Your task to perform on an android device: clear all cookies in the chrome app Image 0: 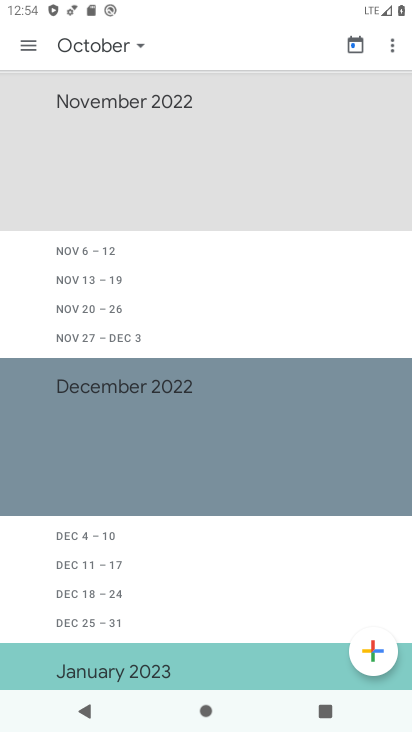
Step 0: press home button
Your task to perform on an android device: clear all cookies in the chrome app Image 1: 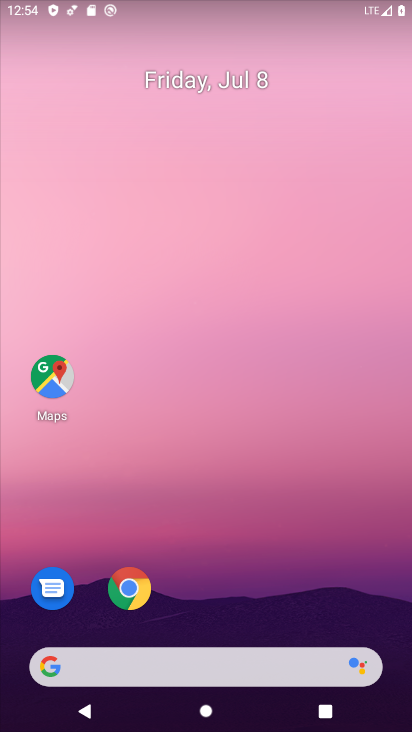
Step 1: click (135, 585)
Your task to perform on an android device: clear all cookies in the chrome app Image 2: 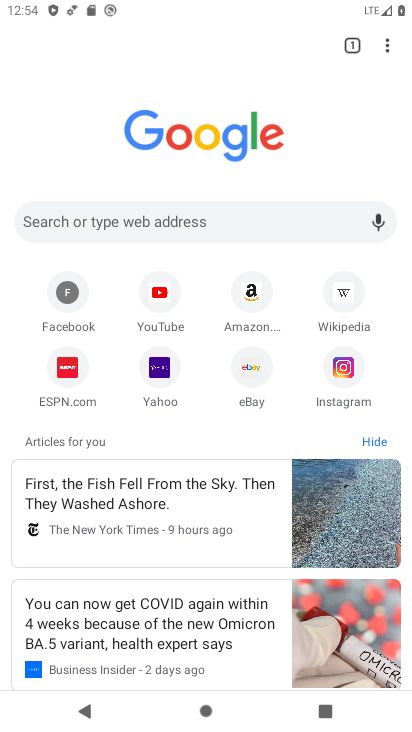
Step 2: click (386, 40)
Your task to perform on an android device: clear all cookies in the chrome app Image 3: 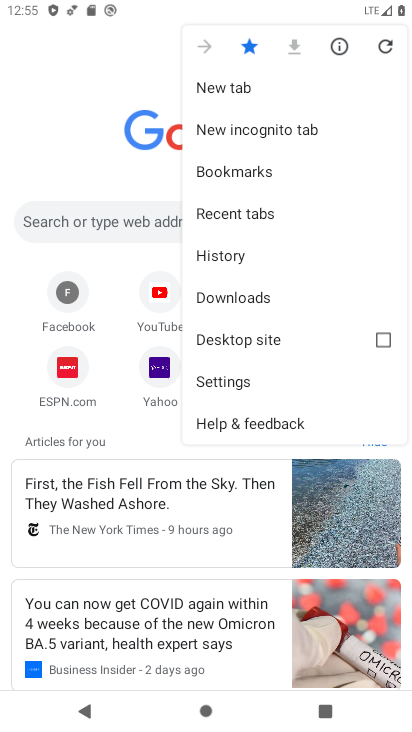
Step 3: click (240, 256)
Your task to perform on an android device: clear all cookies in the chrome app Image 4: 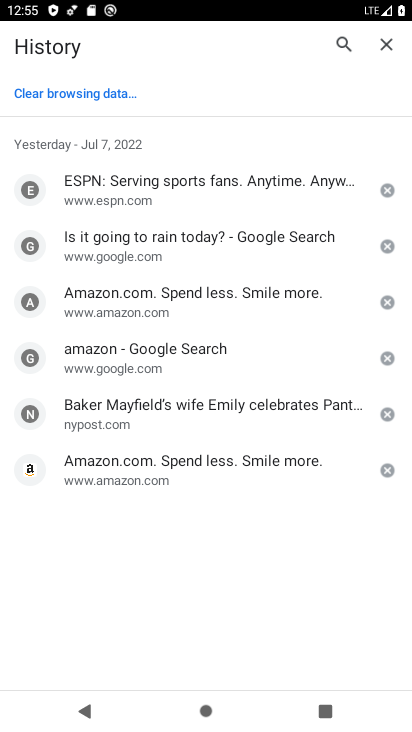
Step 4: click (63, 91)
Your task to perform on an android device: clear all cookies in the chrome app Image 5: 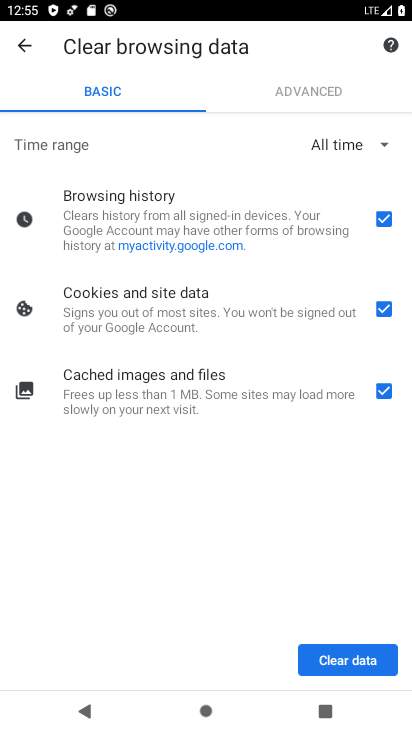
Step 5: click (377, 217)
Your task to perform on an android device: clear all cookies in the chrome app Image 6: 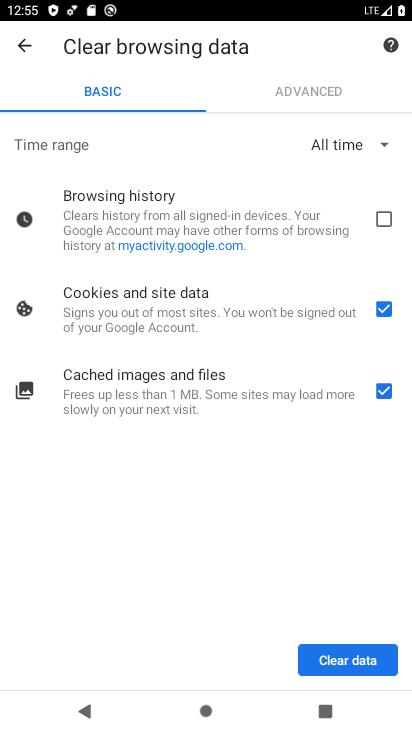
Step 6: click (388, 388)
Your task to perform on an android device: clear all cookies in the chrome app Image 7: 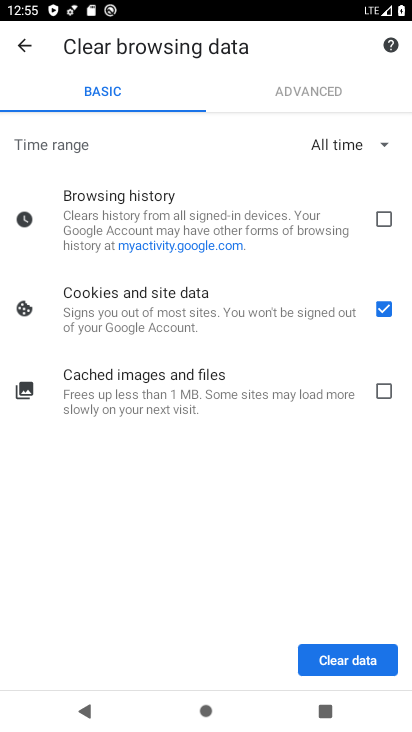
Step 7: click (343, 654)
Your task to perform on an android device: clear all cookies in the chrome app Image 8: 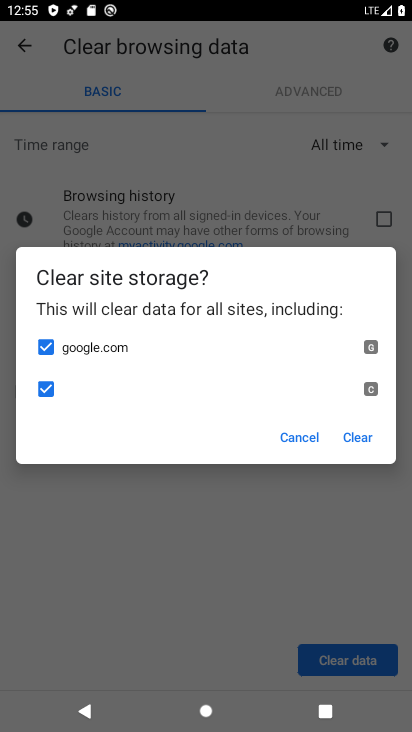
Step 8: click (357, 435)
Your task to perform on an android device: clear all cookies in the chrome app Image 9: 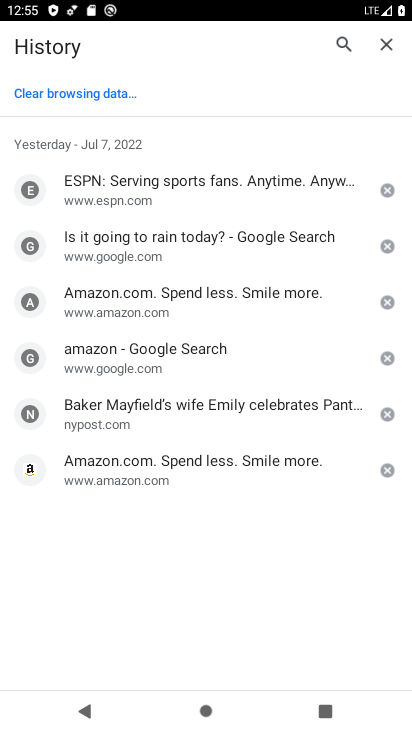
Step 9: task complete